Your task to perform on an android device: see sites visited before in the chrome app Image 0: 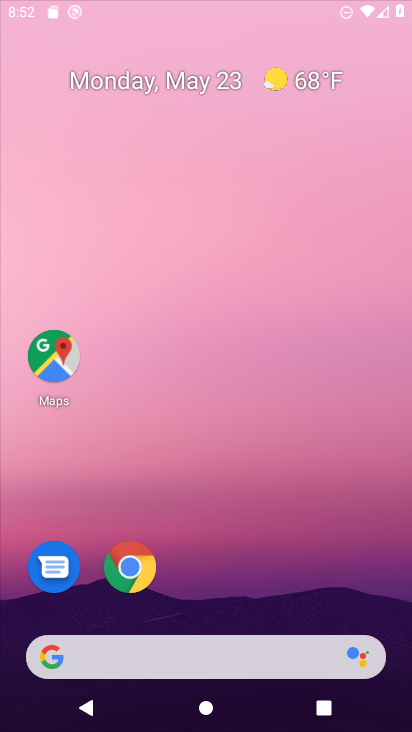
Step 0: click (278, 89)
Your task to perform on an android device: see sites visited before in the chrome app Image 1: 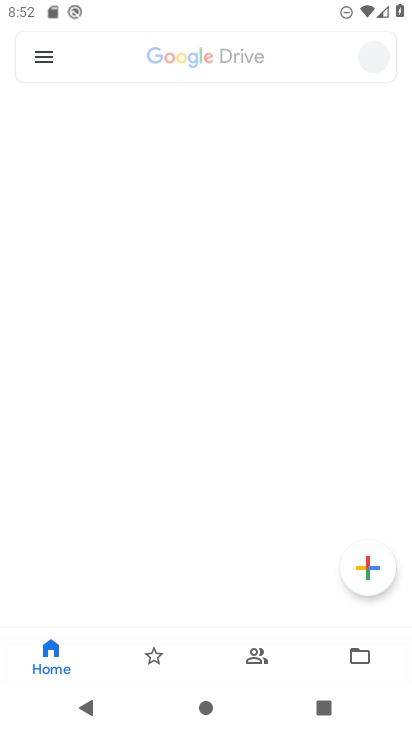
Step 1: drag from (190, 421) to (204, 66)
Your task to perform on an android device: see sites visited before in the chrome app Image 2: 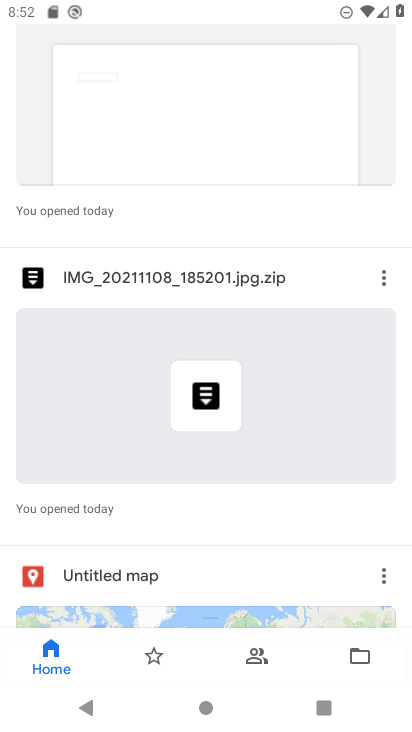
Step 2: press home button
Your task to perform on an android device: see sites visited before in the chrome app Image 3: 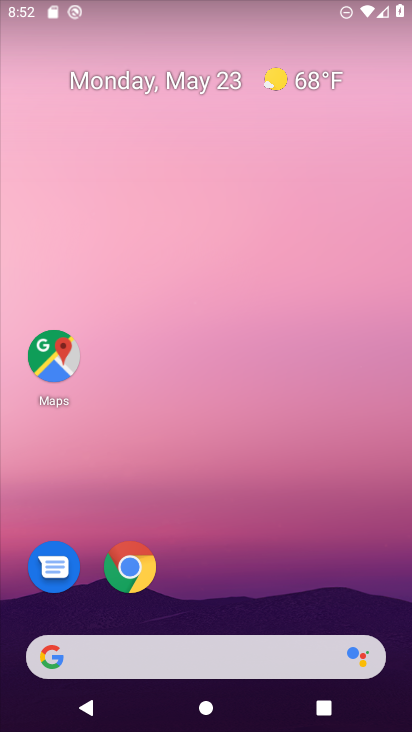
Step 3: drag from (182, 602) to (402, 116)
Your task to perform on an android device: see sites visited before in the chrome app Image 4: 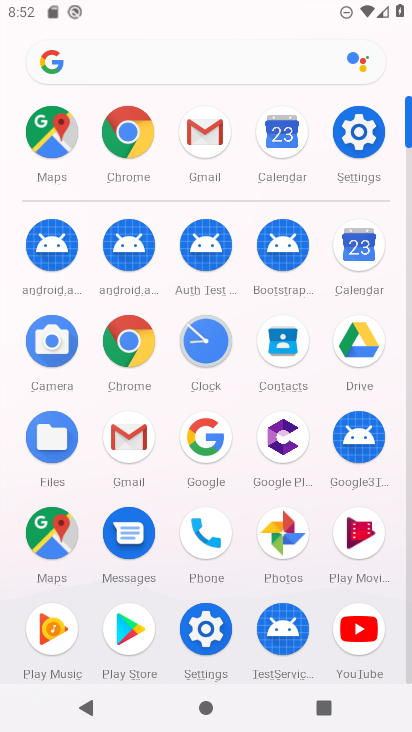
Step 4: click (125, 344)
Your task to perform on an android device: see sites visited before in the chrome app Image 5: 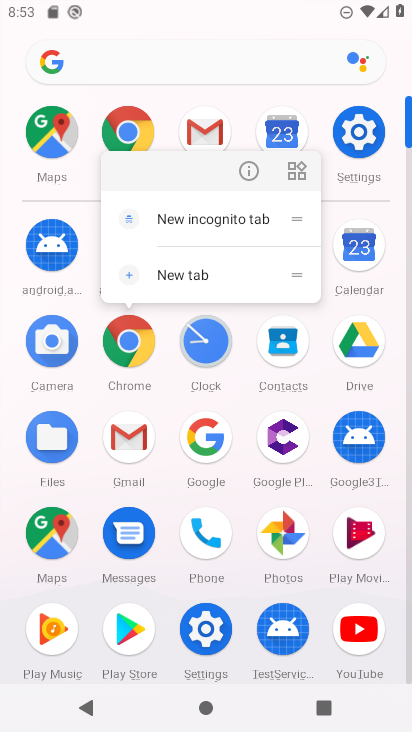
Step 5: click (248, 164)
Your task to perform on an android device: see sites visited before in the chrome app Image 6: 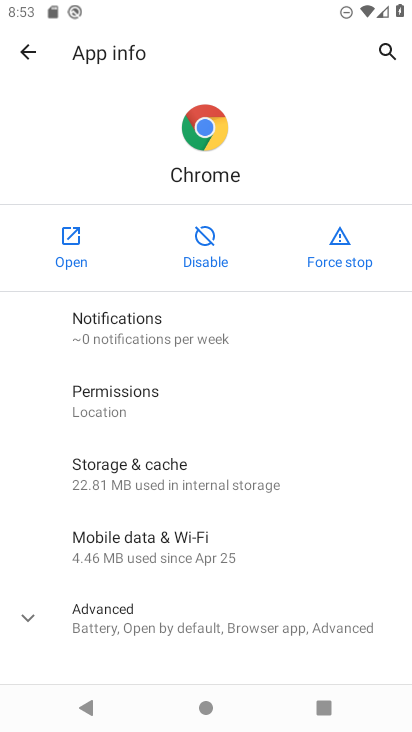
Step 6: click (76, 231)
Your task to perform on an android device: see sites visited before in the chrome app Image 7: 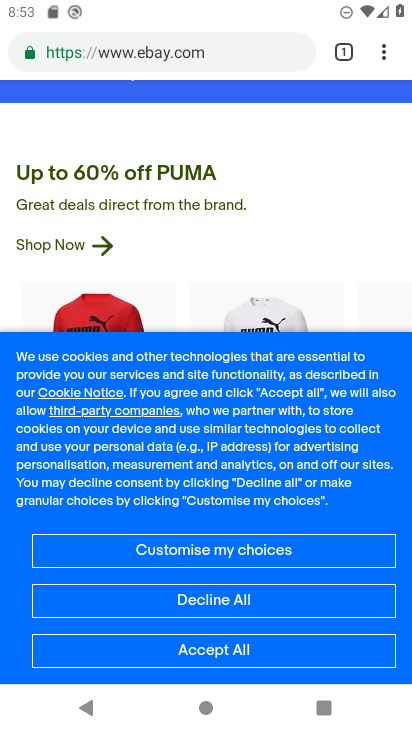
Step 7: drag from (216, 564) to (304, 185)
Your task to perform on an android device: see sites visited before in the chrome app Image 8: 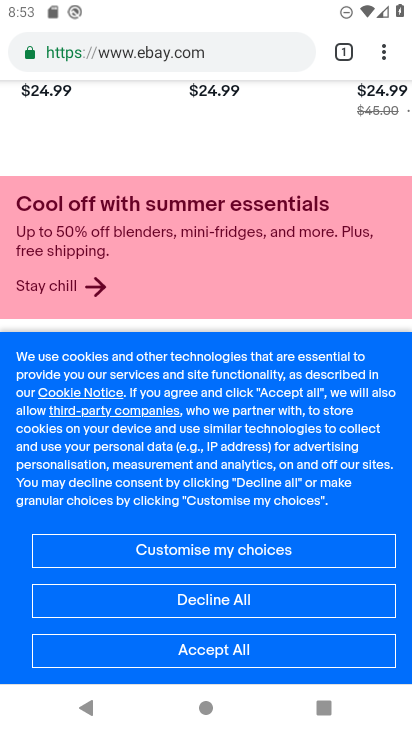
Step 8: drag from (275, 119) to (287, 654)
Your task to perform on an android device: see sites visited before in the chrome app Image 9: 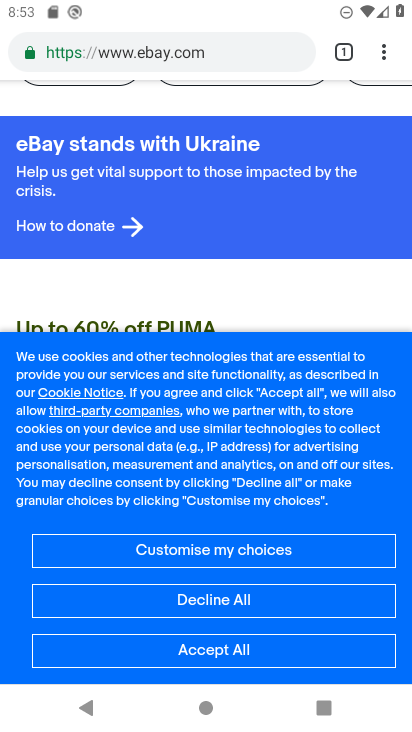
Step 9: drag from (317, 184) to (320, 474)
Your task to perform on an android device: see sites visited before in the chrome app Image 10: 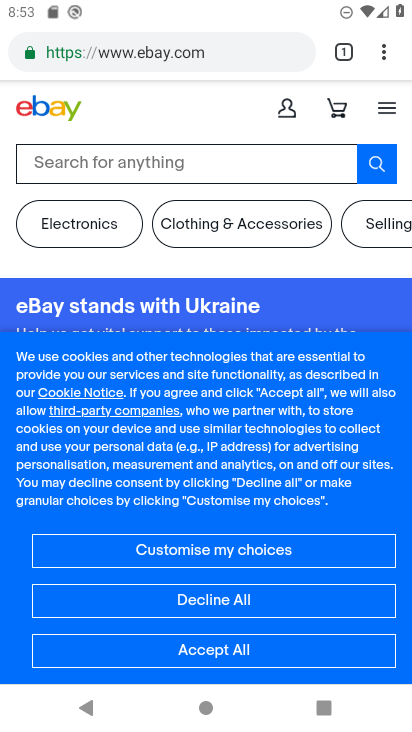
Step 10: drag from (322, 260) to (409, 368)
Your task to perform on an android device: see sites visited before in the chrome app Image 11: 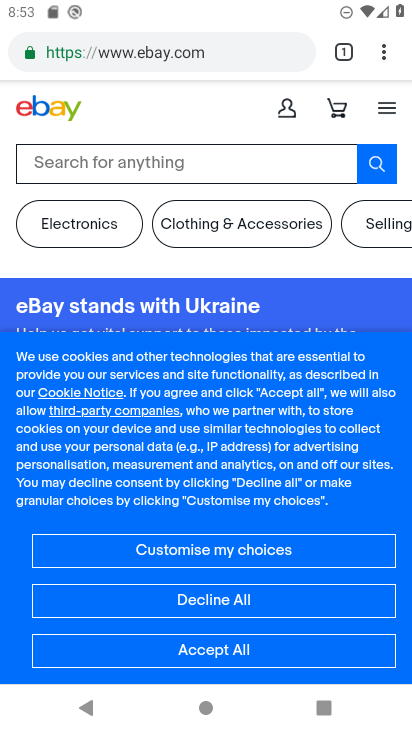
Step 11: click (386, 43)
Your task to perform on an android device: see sites visited before in the chrome app Image 12: 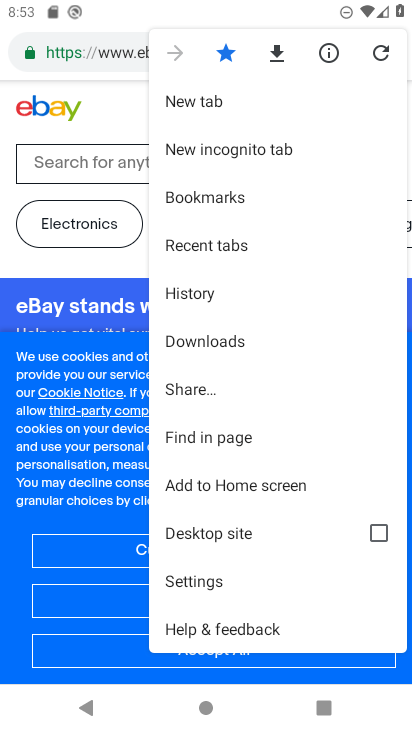
Step 12: click (210, 582)
Your task to perform on an android device: see sites visited before in the chrome app Image 13: 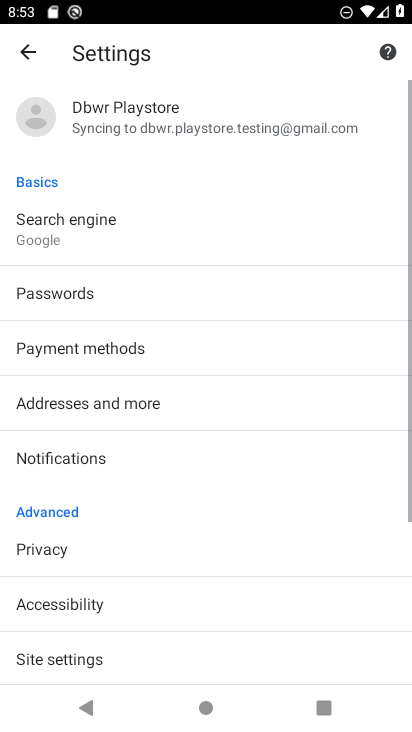
Step 13: drag from (208, 373) to (294, 40)
Your task to perform on an android device: see sites visited before in the chrome app Image 14: 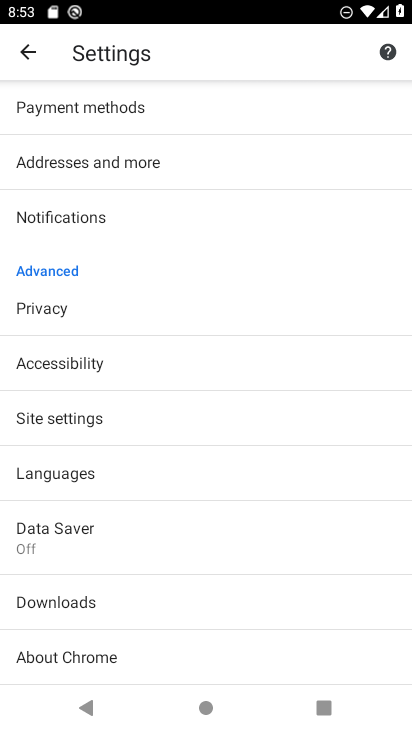
Step 14: click (129, 413)
Your task to perform on an android device: see sites visited before in the chrome app Image 15: 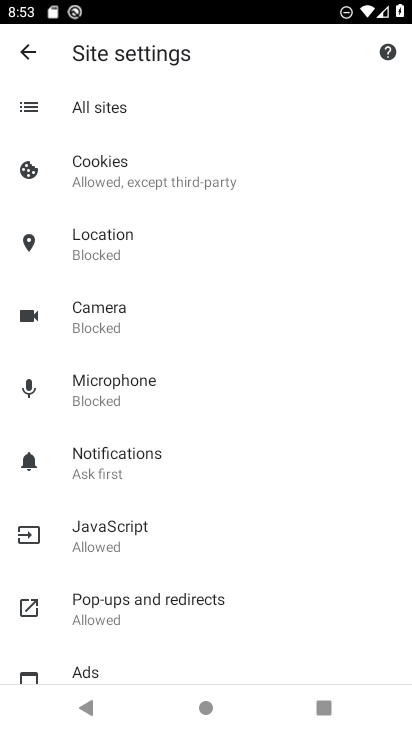
Step 15: click (34, 51)
Your task to perform on an android device: see sites visited before in the chrome app Image 16: 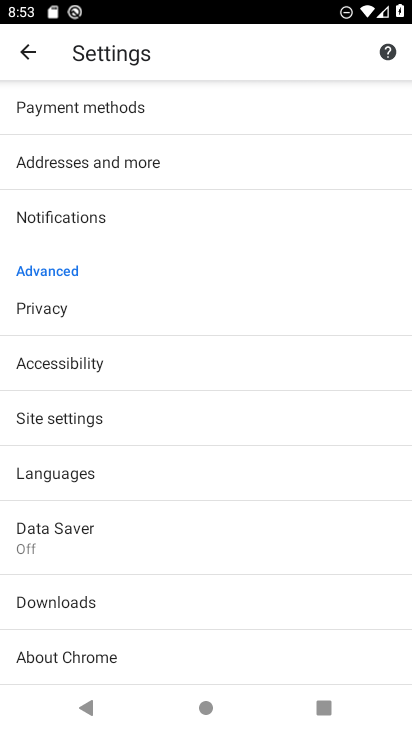
Step 16: click (34, 45)
Your task to perform on an android device: see sites visited before in the chrome app Image 17: 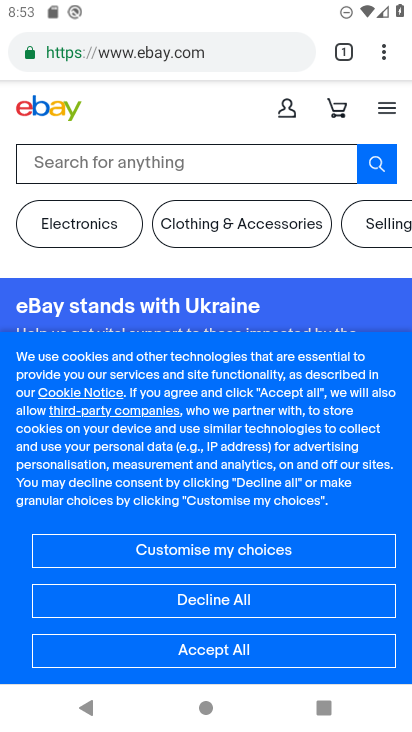
Step 17: click (375, 49)
Your task to perform on an android device: see sites visited before in the chrome app Image 18: 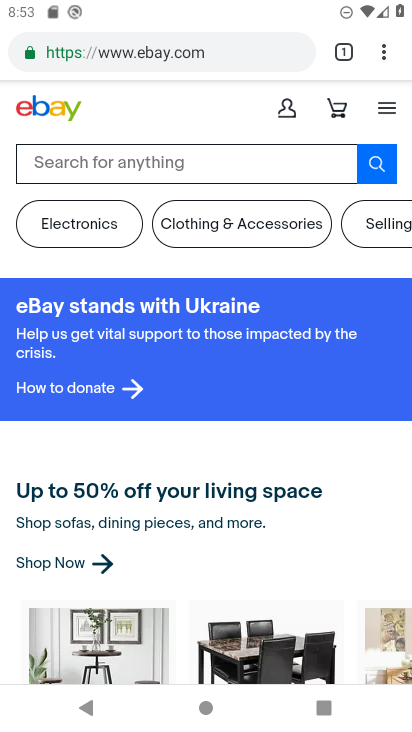
Step 18: click (384, 52)
Your task to perform on an android device: see sites visited before in the chrome app Image 19: 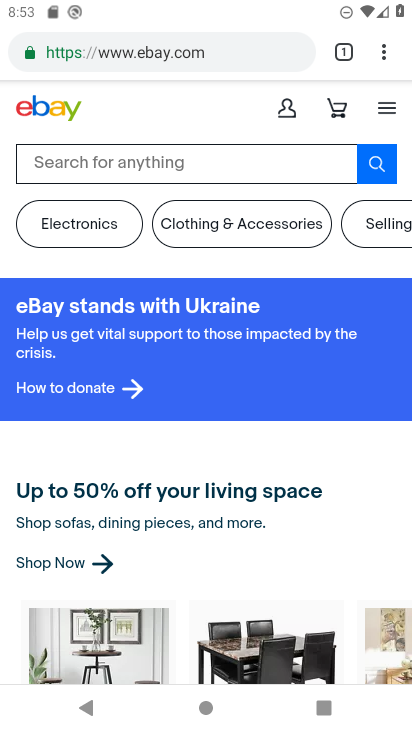
Step 19: click (384, 52)
Your task to perform on an android device: see sites visited before in the chrome app Image 20: 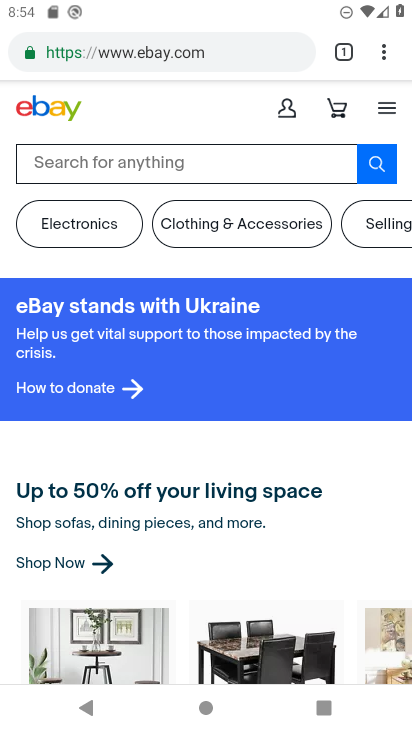
Step 20: click (384, 52)
Your task to perform on an android device: see sites visited before in the chrome app Image 21: 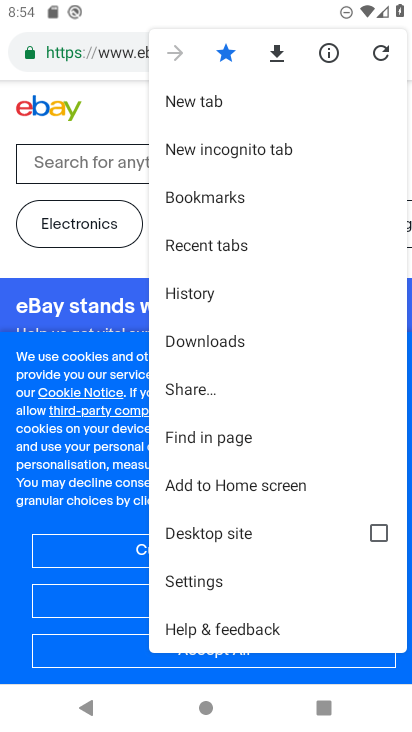
Step 21: click (230, 197)
Your task to perform on an android device: see sites visited before in the chrome app Image 22: 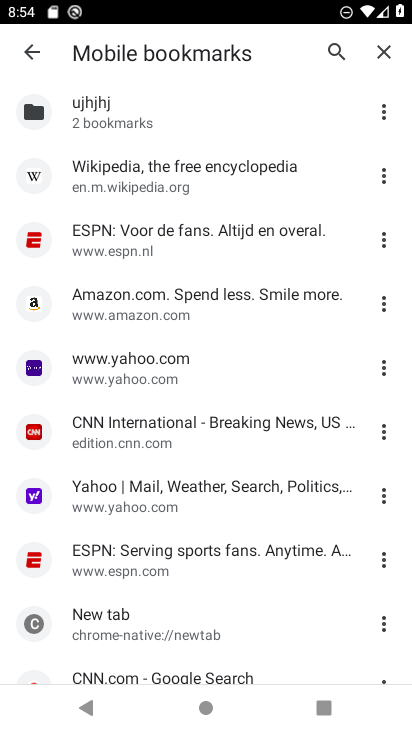
Step 22: task complete